Your task to perform on an android device: turn off data saver in the chrome app Image 0: 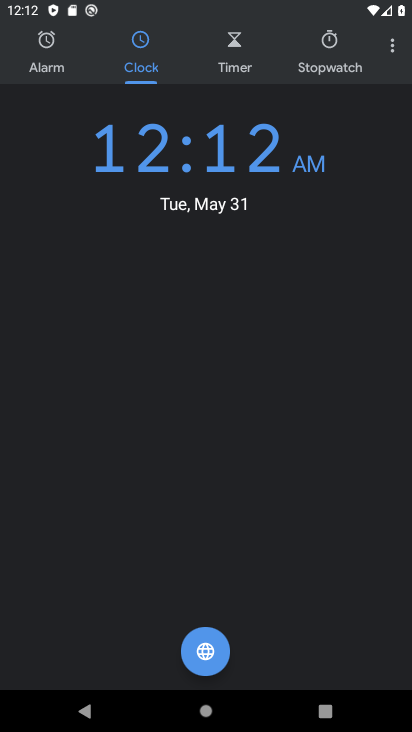
Step 0: press home button
Your task to perform on an android device: turn off data saver in the chrome app Image 1: 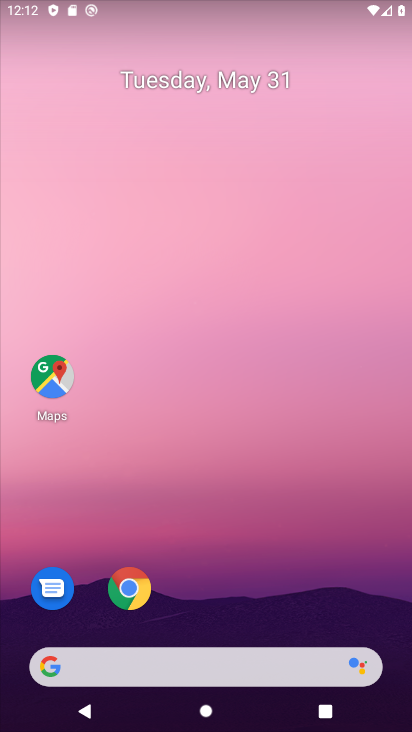
Step 1: click (123, 590)
Your task to perform on an android device: turn off data saver in the chrome app Image 2: 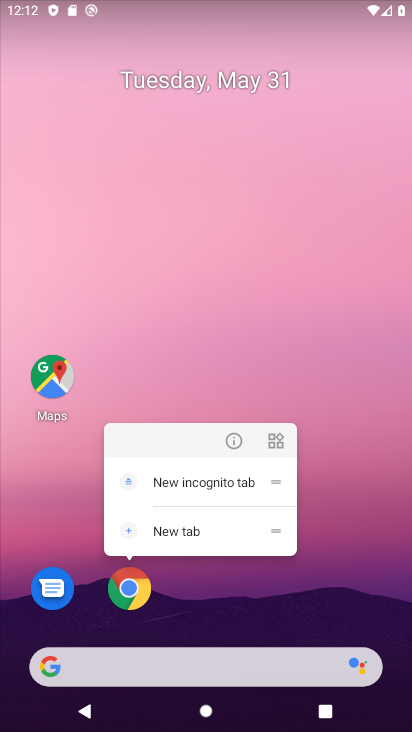
Step 2: click (124, 602)
Your task to perform on an android device: turn off data saver in the chrome app Image 3: 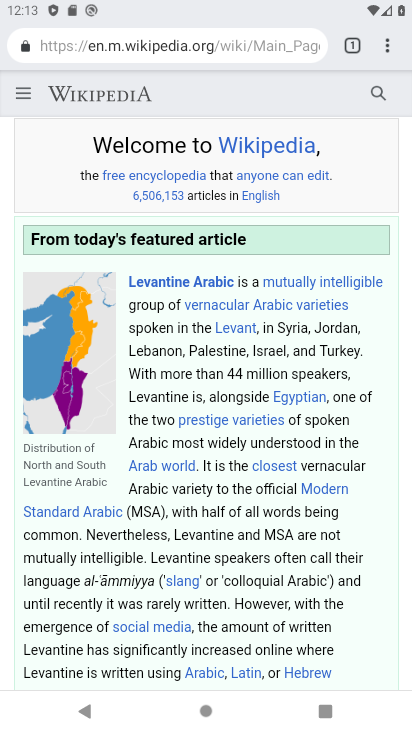
Step 3: click (358, 52)
Your task to perform on an android device: turn off data saver in the chrome app Image 4: 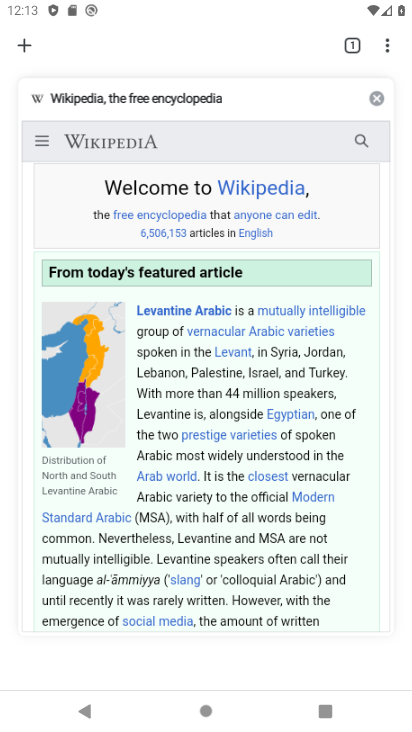
Step 4: click (385, 53)
Your task to perform on an android device: turn off data saver in the chrome app Image 5: 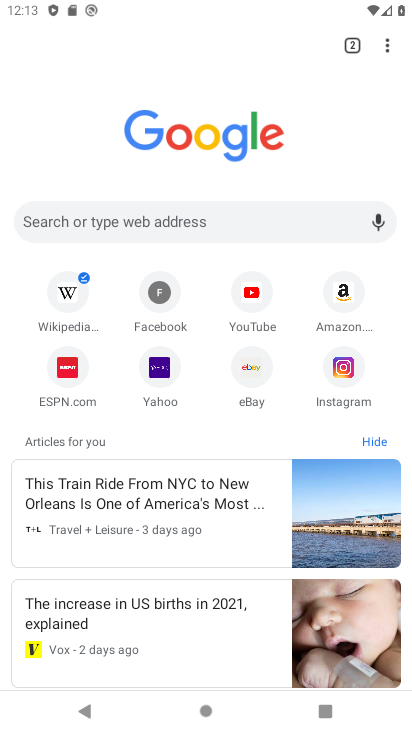
Step 5: click (390, 47)
Your task to perform on an android device: turn off data saver in the chrome app Image 6: 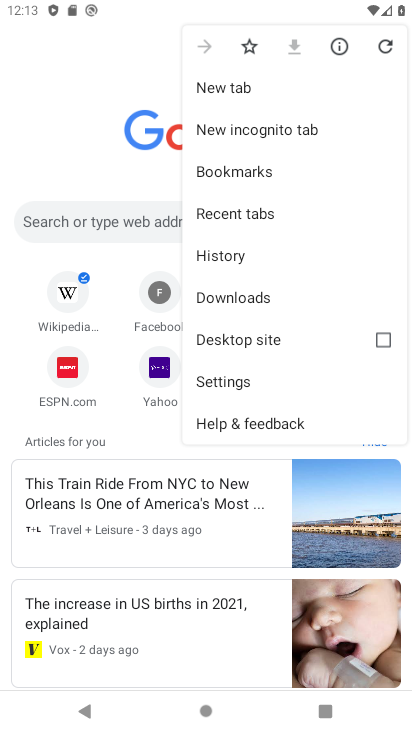
Step 6: click (235, 381)
Your task to perform on an android device: turn off data saver in the chrome app Image 7: 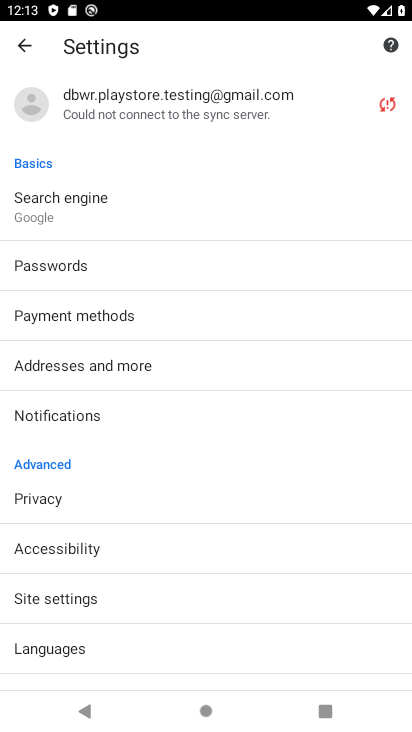
Step 7: drag from (103, 625) to (187, 264)
Your task to perform on an android device: turn off data saver in the chrome app Image 8: 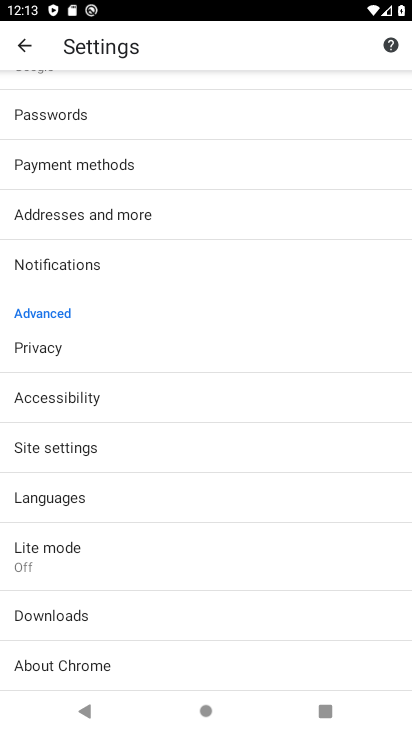
Step 8: click (60, 549)
Your task to perform on an android device: turn off data saver in the chrome app Image 9: 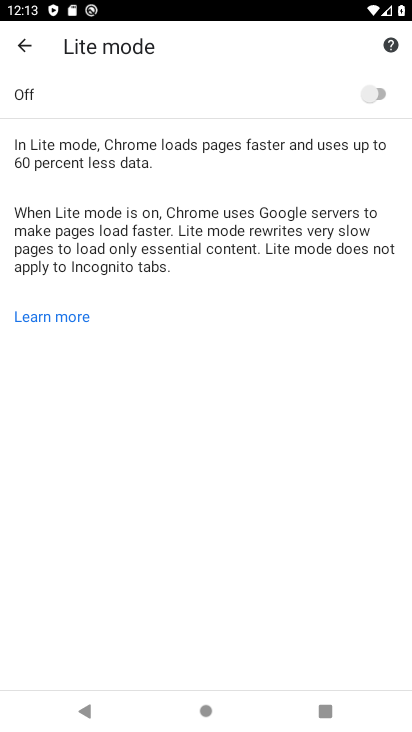
Step 9: task complete